Your task to perform on an android device: open device folders in google photos Image 0: 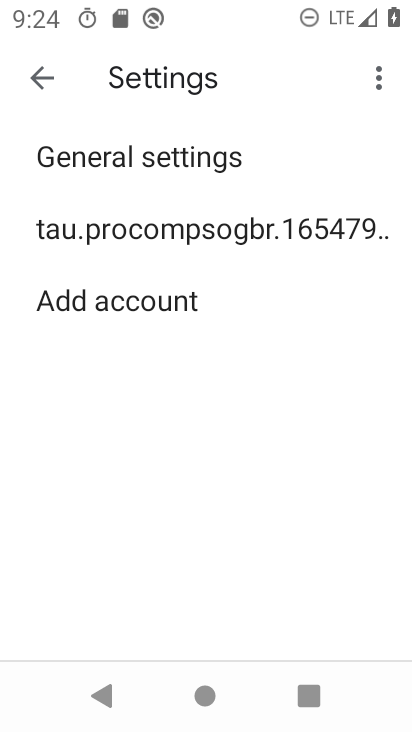
Step 0: press back button
Your task to perform on an android device: open device folders in google photos Image 1: 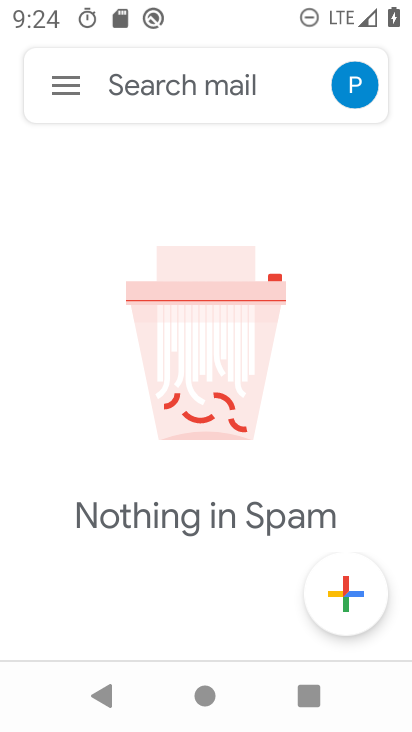
Step 1: press back button
Your task to perform on an android device: open device folders in google photos Image 2: 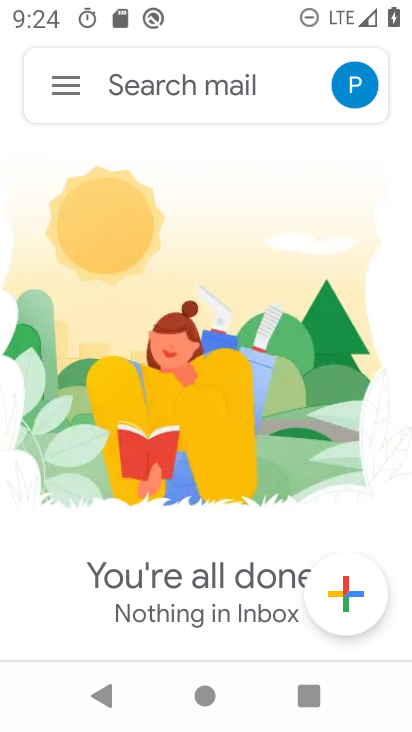
Step 2: press back button
Your task to perform on an android device: open device folders in google photos Image 3: 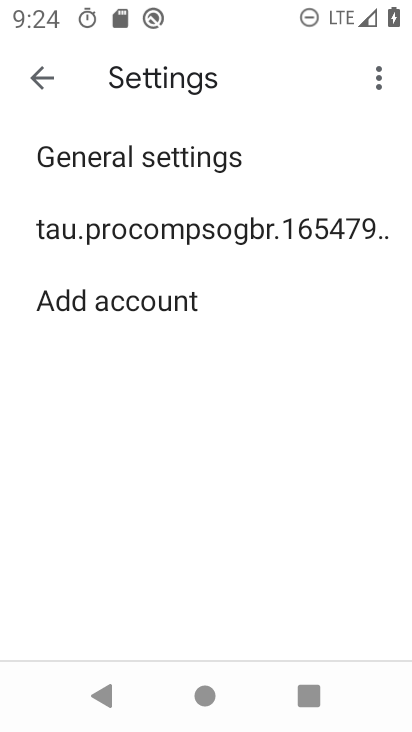
Step 3: press back button
Your task to perform on an android device: open device folders in google photos Image 4: 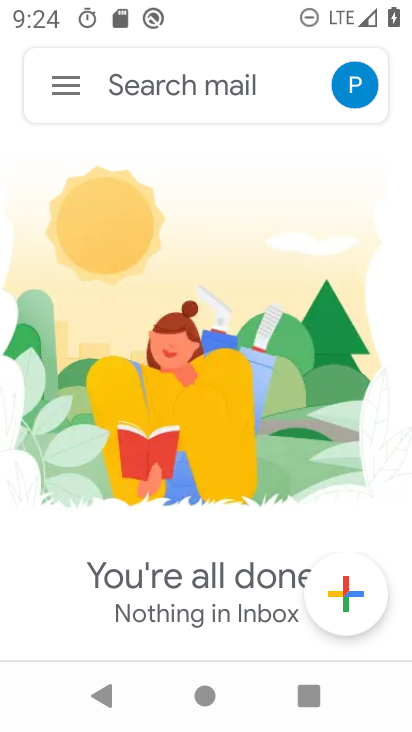
Step 4: press back button
Your task to perform on an android device: open device folders in google photos Image 5: 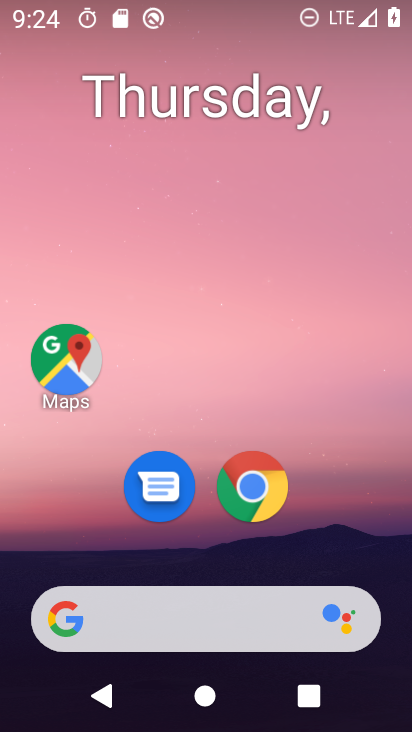
Step 5: drag from (191, 537) to (275, 7)
Your task to perform on an android device: open device folders in google photos Image 6: 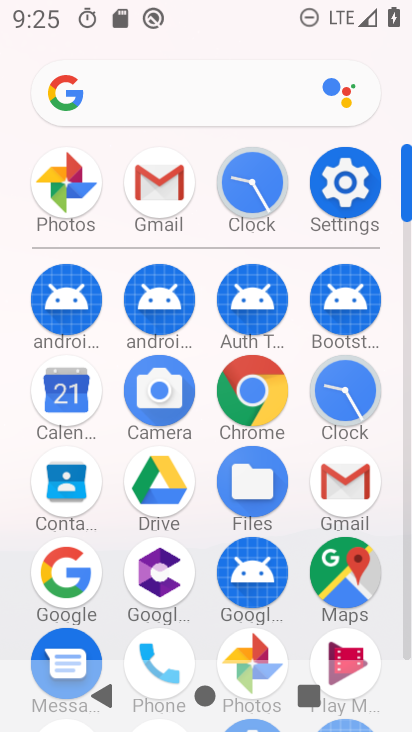
Step 6: click (241, 643)
Your task to perform on an android device: open device folders in google photos Image 7: 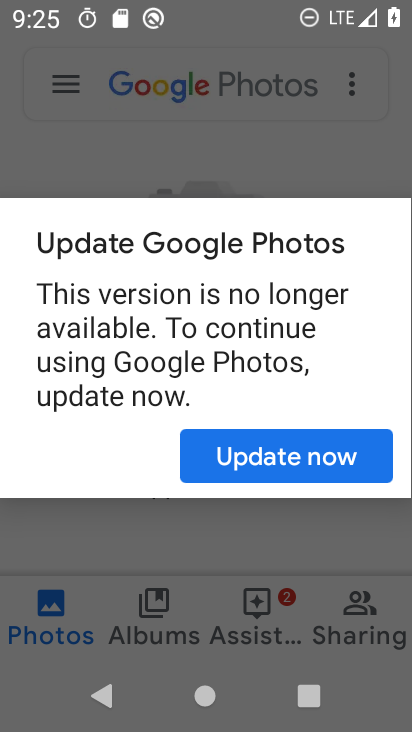
Step 7: click (307, 461)
Your task to perform on an android device: open device folders in google photos Image 8: 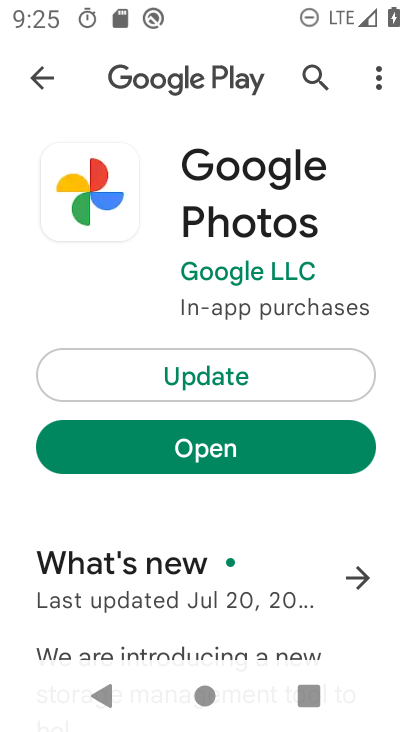
Step 8: click (211, 457)
Your task to perform on an android device: open device folders in google photos Image 9: 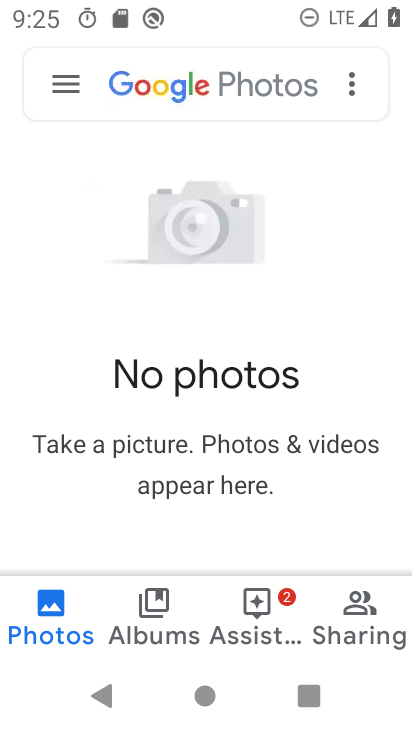
Step 9: click (58, 89)
Your task to perform on an android device: open device folders in google photos Image 10: 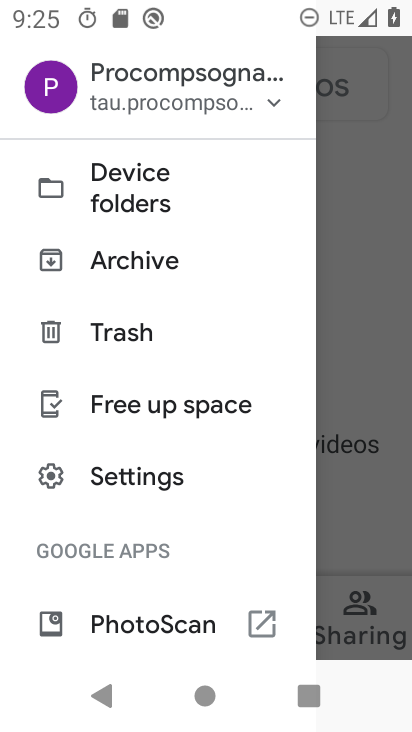
Step 10: click (158, 183)
Your task to perform on an android device: open device folders in google photos Image 11: 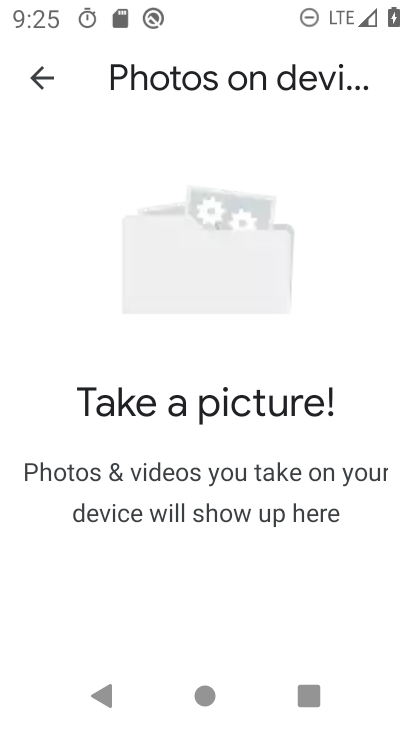
Step 11: task complete